Your task to perform on an android device: open chrome privacy settings Image 0: 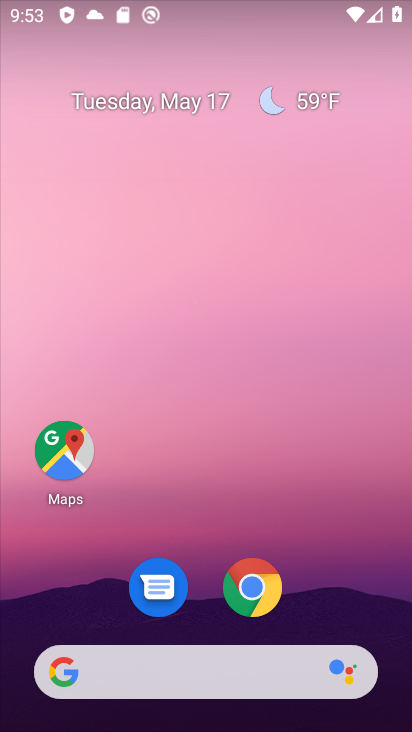
Step 0: drag from (336, 581) to (248, 221)
Your task to perform on an android device: open chrome privacy settings Image 1: 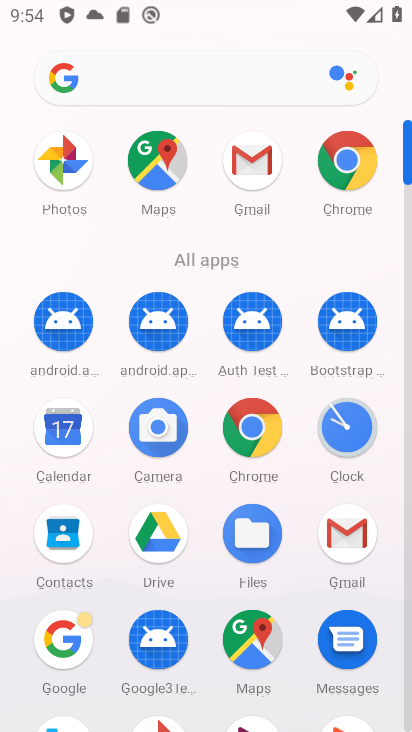
Step 1: click (351, 180)
Your task to perform on an android device: open chrome privacy settings Image 2: 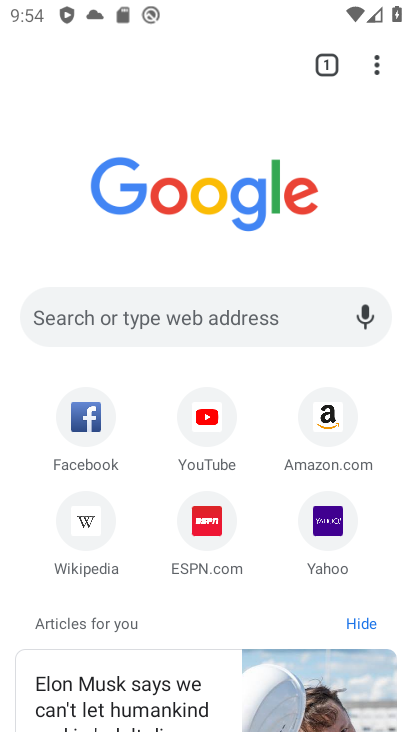
Step 2: click (385, 63)
Your task to perform on an android device: open chrome privacy settings Image 3: 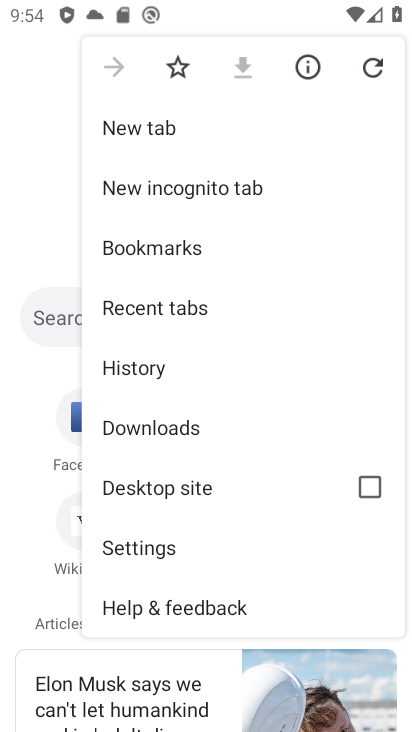
Step 3: click (155, 545)
Your task to perform on an android device: open chrome privacy settings Image 4: 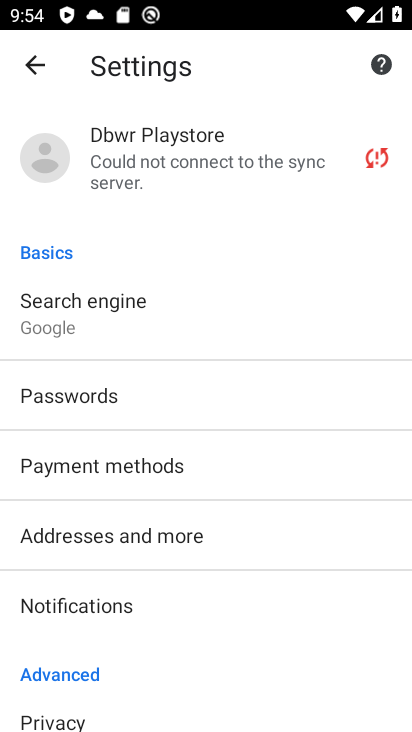
Step 4: click (69, 719)
Your task to perform on an android device: open chrome privacy settings Image 5: 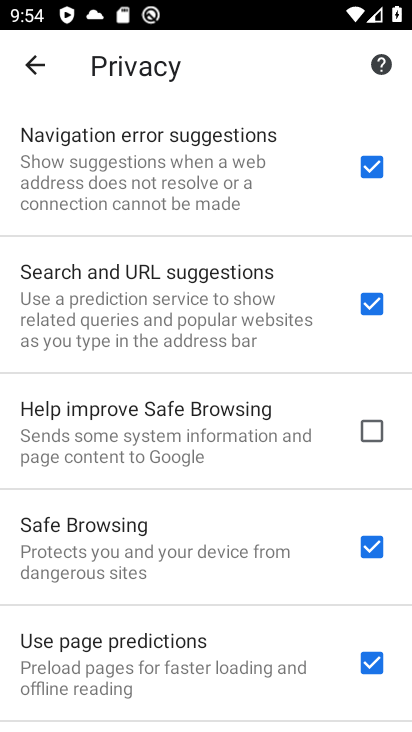
Step 5: task complete